Your task to perform on an android device: What's on my calendar today? Image 0: 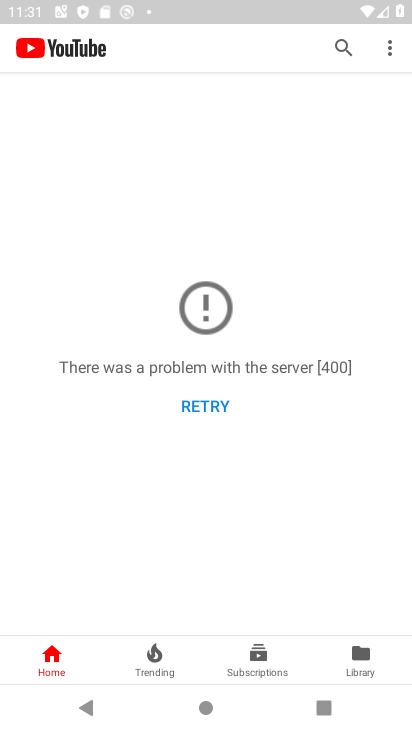
Step 0: press home button
Your task to perform on an android device: What's on my calendar today? Image 1: 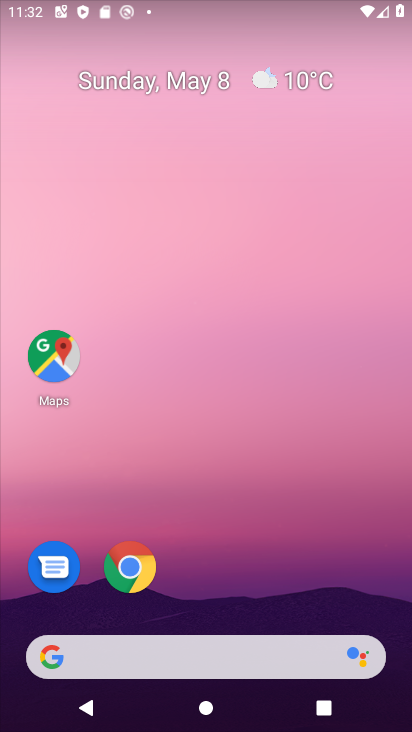
Step 1: drag from (175, 561) to (236, 261)
Your task to perform on an android device: What's on my calendar today? Image 2: 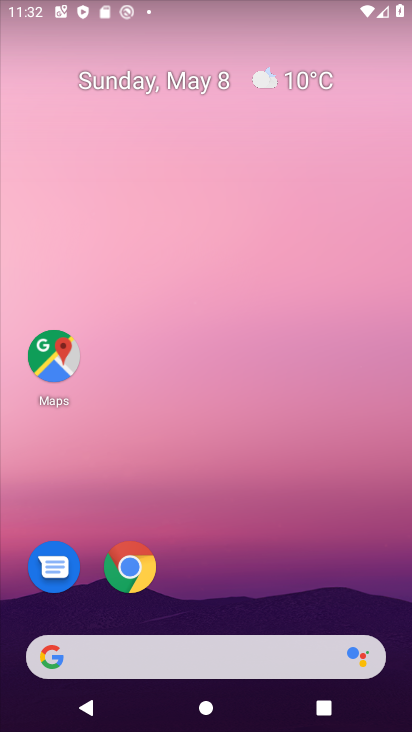
Step 2: drag from (200, 610) to (312, 154)
Your task to perform on an android device: What's on my calendar today? Image 3: 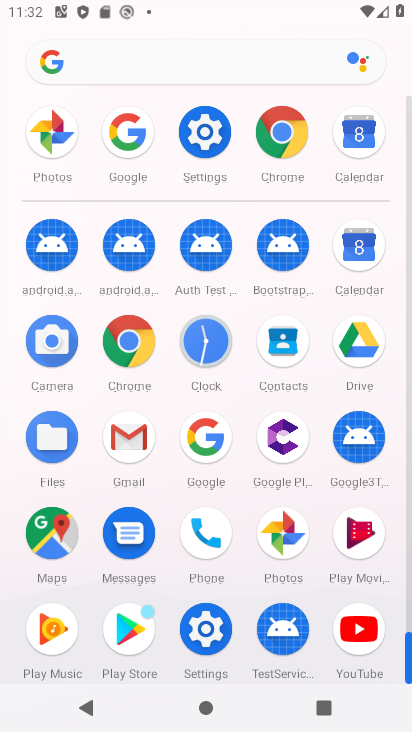
Step 3: click (364, 252)
Your task to perform on an android device: What's on my calendar today? Image 4: 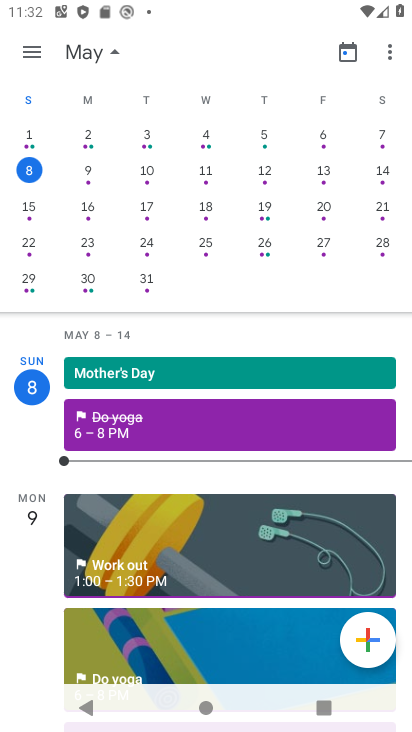
Step 4: task complete